Your task to perform on an android device: clear all cookies in the chrome app Image 0: 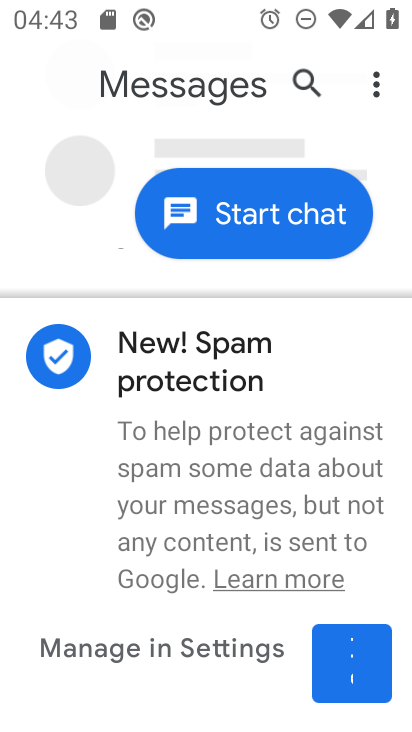
Step 0: press home button
Your task to perform on an android device: clear all cookies in the chrome app Image 1: 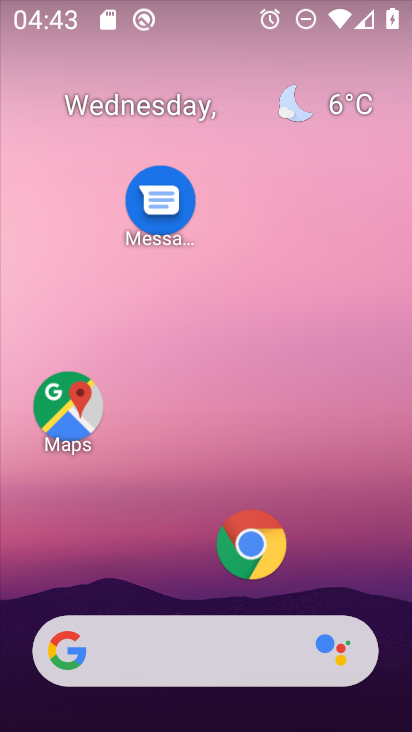
Step 1: click (257, 560)
Your task to perform on an android device: clear all cookies in the chrome app Image 2: 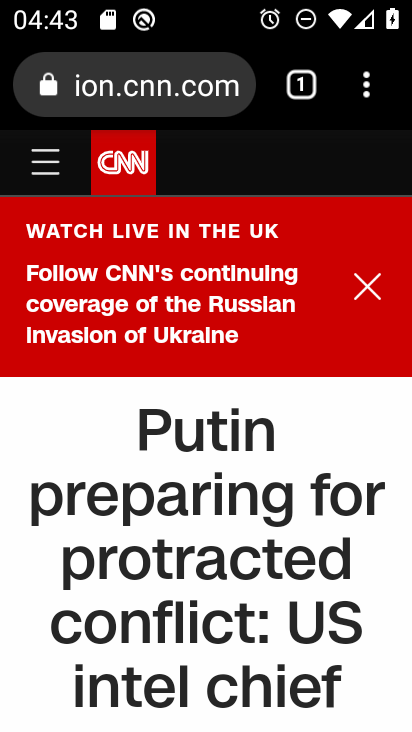
Step 2: click (360, 89)
Your task to perform on an android device: clear all cookies in the chrome app Image 3: 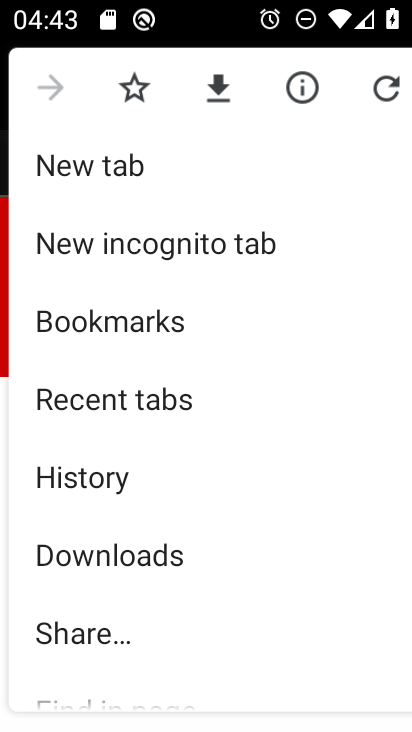
Step 3: click (78, 464)
Your task to perform on an android device: clear all cookies in the chrome app Image 4: 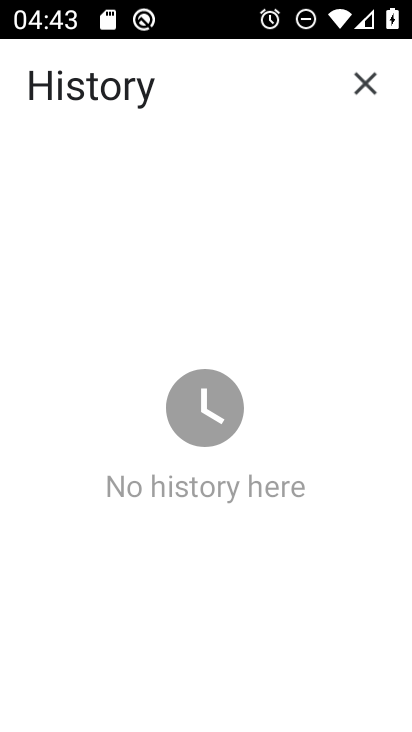
Step 4: task complete